Your task to perform on an android device: Open Google Image 0: 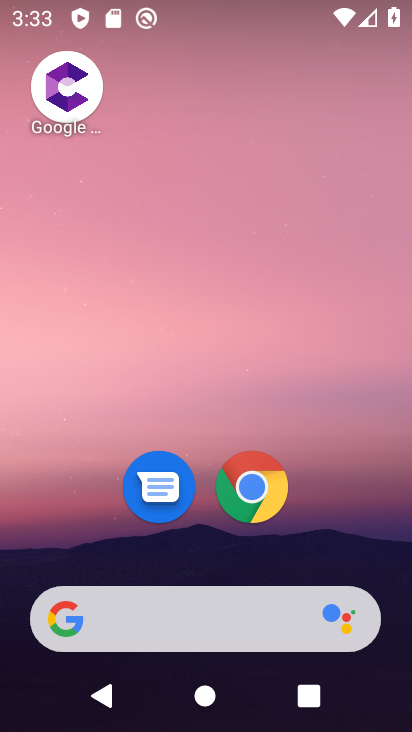
Step 0: click (246, 504)
Your task to perform on an android device: Open Google Image 1: 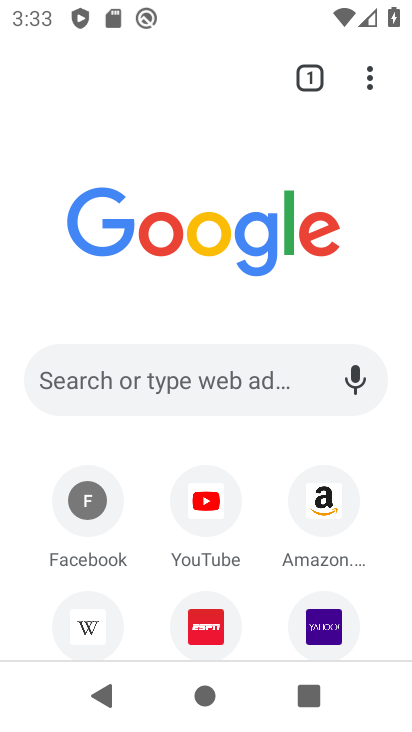
Step 1: task complete